Your task to perform on an android device: Go to Yahoo.com Image 0: 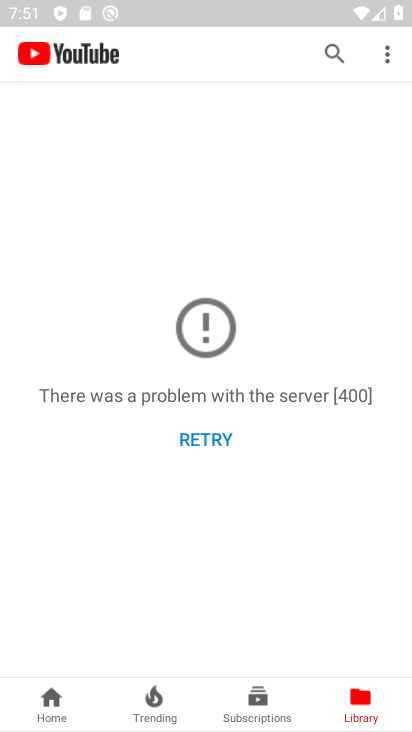
Step 0: press home button
Your task to perform on an android device: Go to Yahoo.com Image 1: 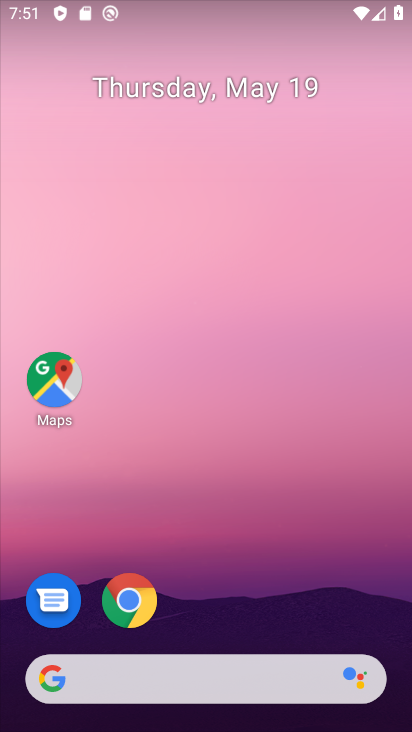
Step 1: click (139, 604)
Your task to perform on an android device: Go to Yahoo.com Image 2: 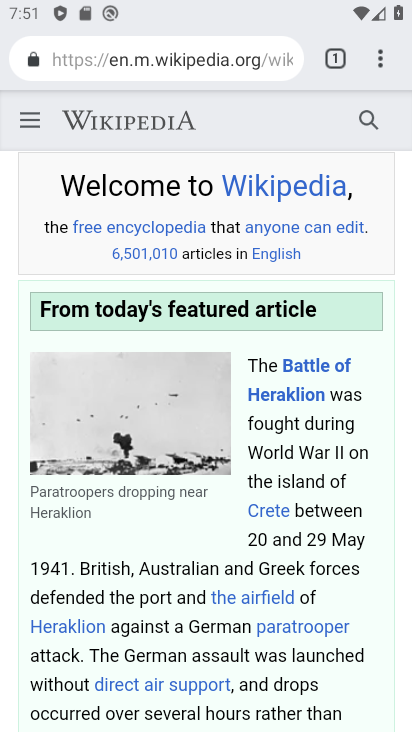
Step 2: click (254, 66)
Your task to perform on an android device: Go to Yahoo.com Image 3: 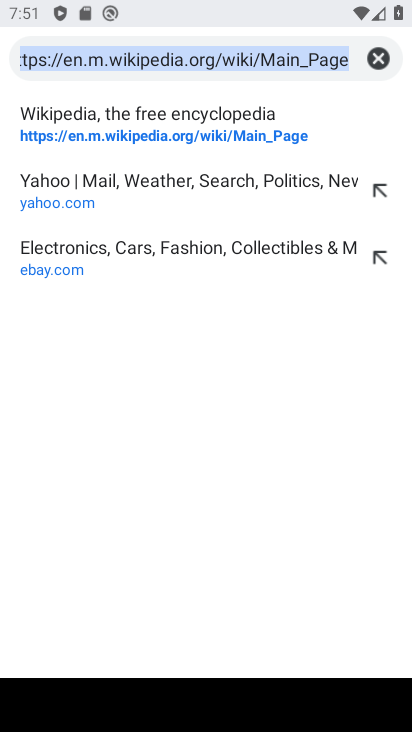
Step 3: click (209, 174)
Your task to perform on an android device: Go to Yahoo.com Image 4: 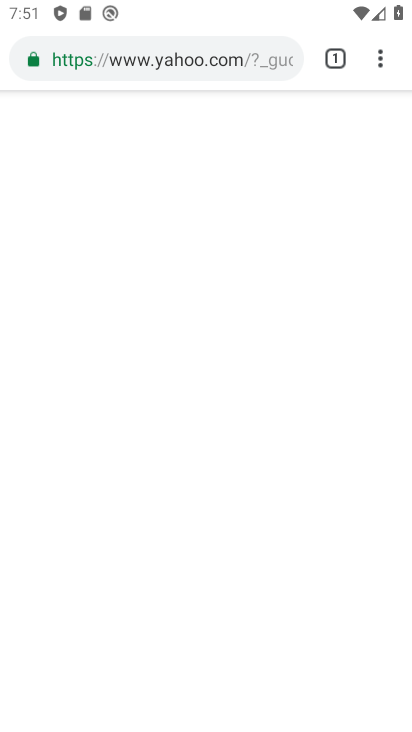
Step 4: task complete